Your task to perform on an android device: turn off javascript in the chrome app Image 0: 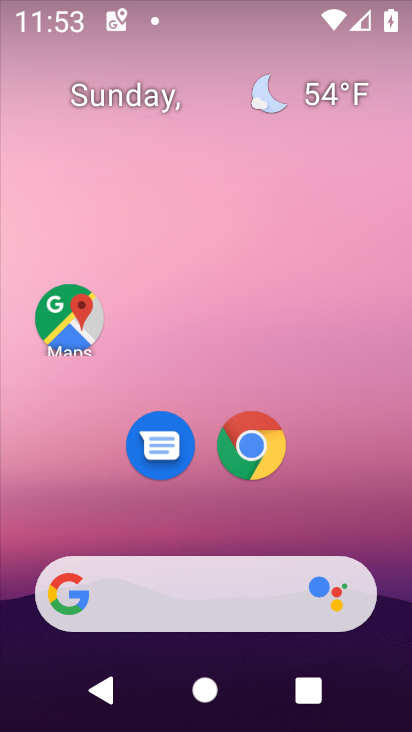
Step 0: drag from (358, 445) to (356, 69)
Your task to perform on an android device: turn off javascript in the chrome app Image 1: 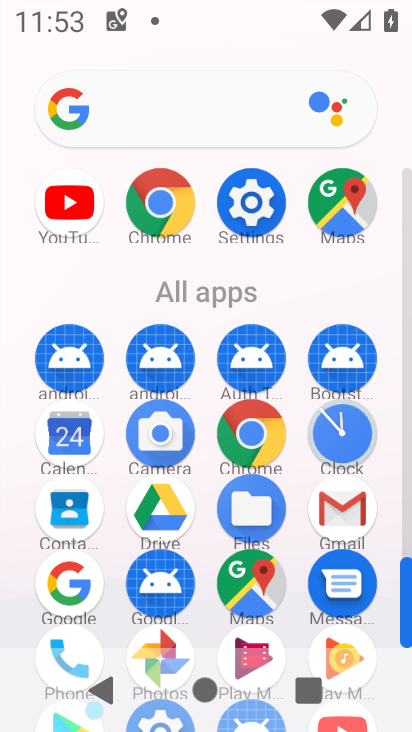
Step 1: click (266, 436)
Your task to perform on an android device: turn off javascript in the chrome app Image 2: 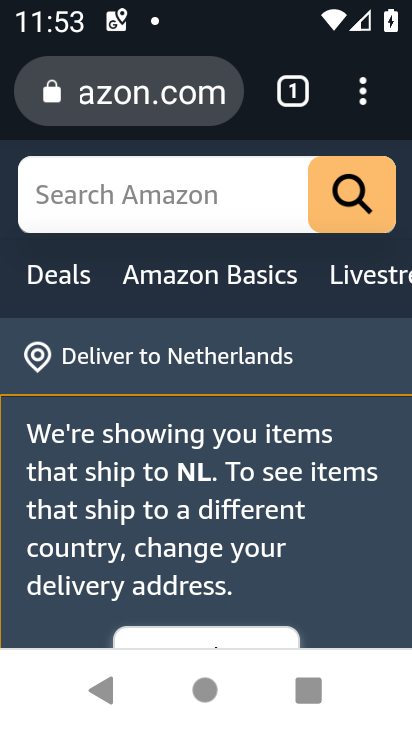
Step 2: drag from (366, 97) to (124, 479)
Your task to perform on an android device: turn off javascript in the chrome app Image 3: 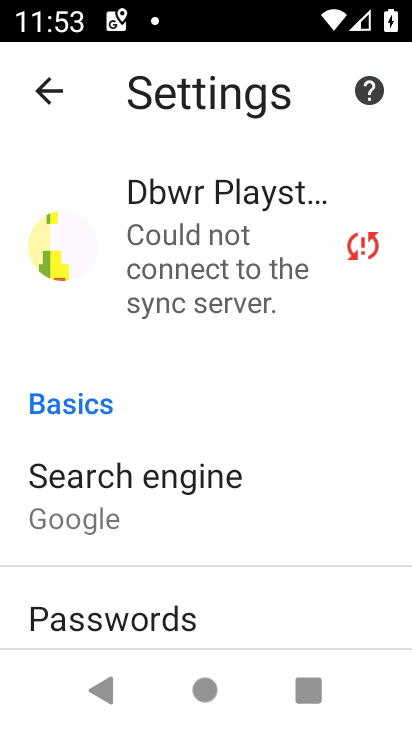
Step 3: drag from (247, 581) to (246, 260)
Your task to perform on an android device: turn off javascript in the chrome app Image 4: 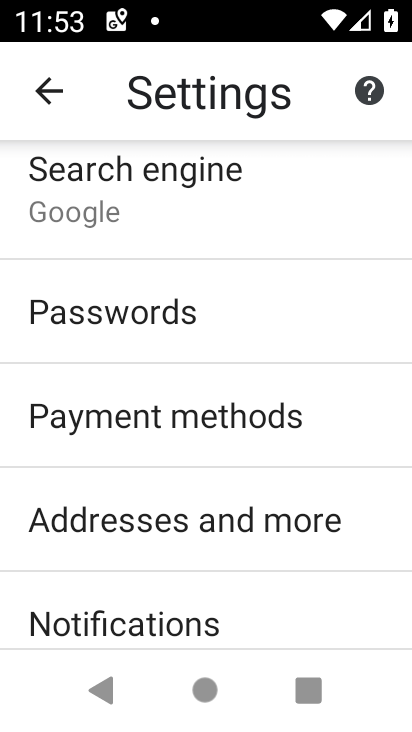
Step 4: drag from (276, 559) to (278, 212)
Your task to perform on an android device: turn off javascript in the chrome app Image 5: 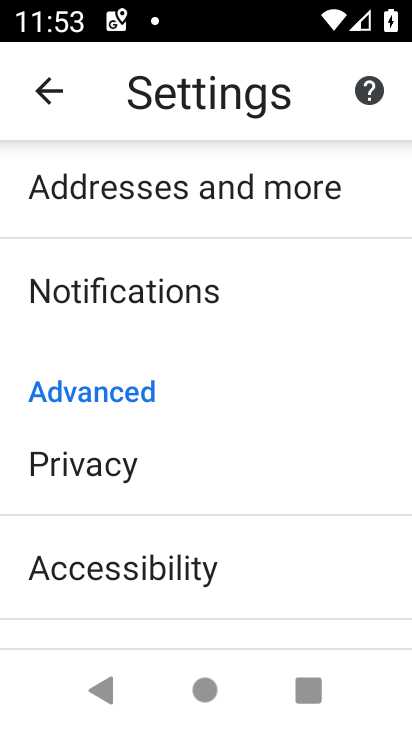
Step 5: drag from (249, 563) to (250, 232)
Your task to perform on an android device: turn off javascript in the chrome app Image 6: 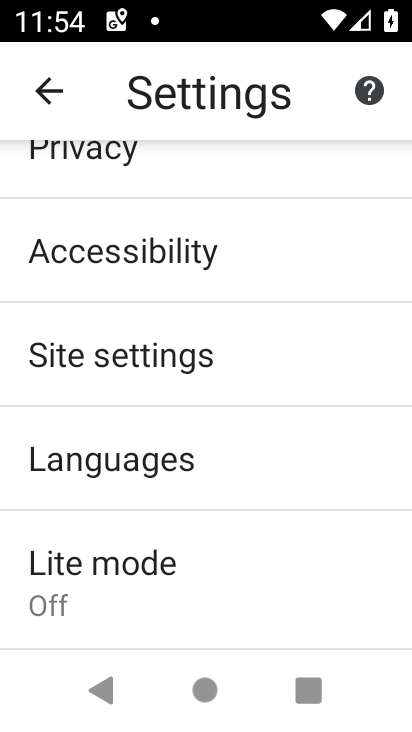
Step 6: drag from (234, 599) to (234, 334)
Your task to perform on an android device: turn off javascript in the chrome app Image 7: 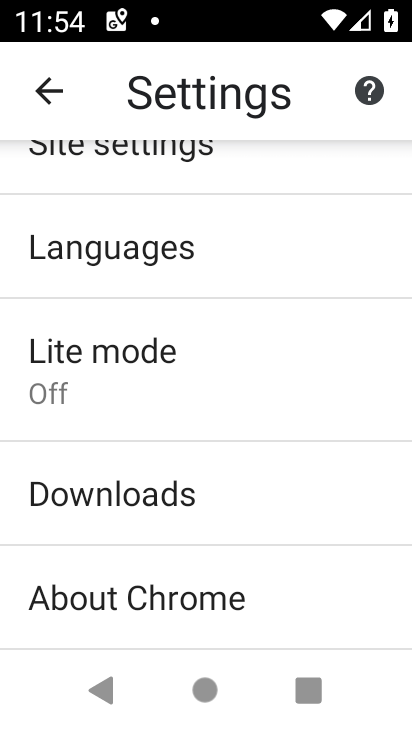
Step 7: drag from (265, 599) to (261, 312)
Your task to perform on an android device: turn off javascript in the chrome app Image 8: 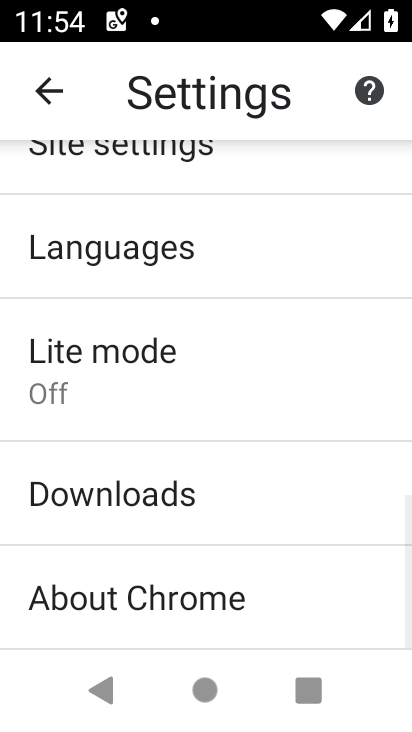
Step 8: drag from (290, 224) to (344, 578)
Your task to perform on an android device: turn off javascript in the chrome app Image 9: 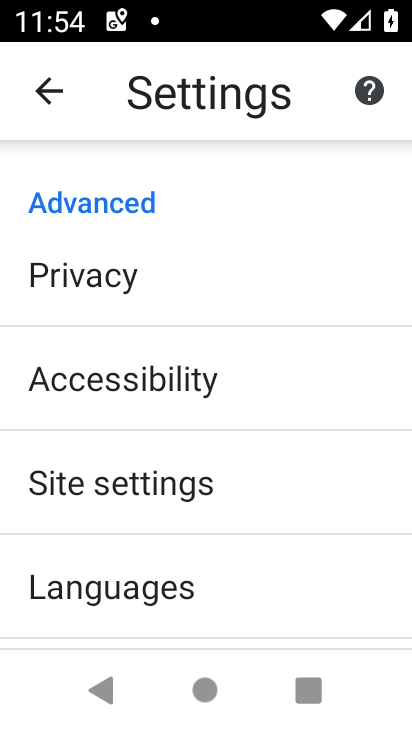
Step 9: click (198, 493)
Your task to perform on an android device: turn off javascript in the chrome app Image 10: 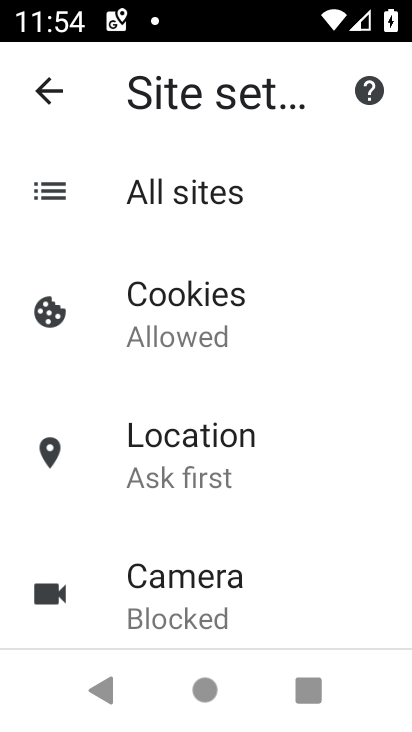
Step 10: drag from (261, 535) to (251, 319)
Your task to perform on an android device: turn off javascript in the chrome app Image 11: 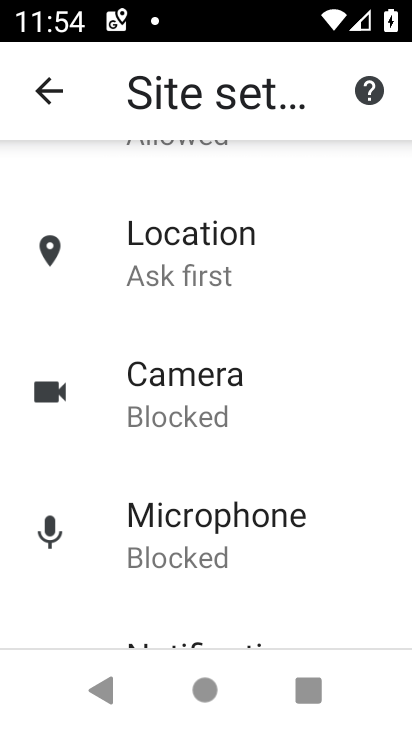
Step 11: drag from (260, 556) to (255, 328)
Your task to perform on an android device: turn off javascript in the chrome app Image 12: 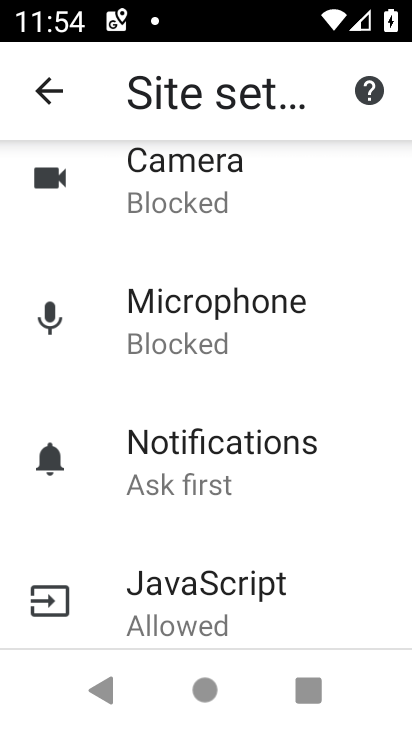
Step 12: click (256, 588)
Your task to perform on an android device: turn off javascript in the chrome app Image 13: 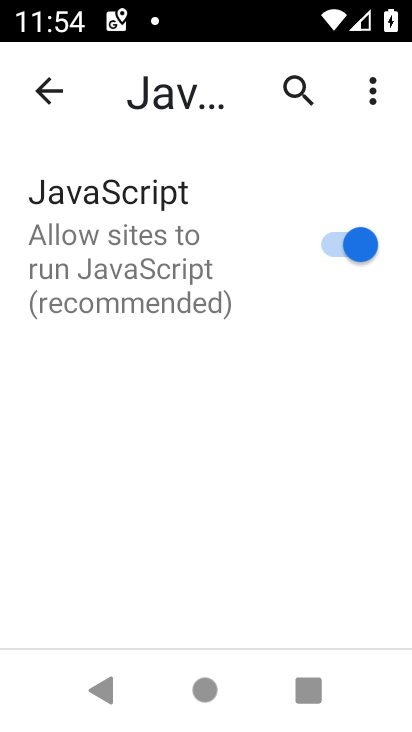
Step 13: click (327, 239)
Your task to perform on an android device: turn off javascript in the chrome app Image 14: 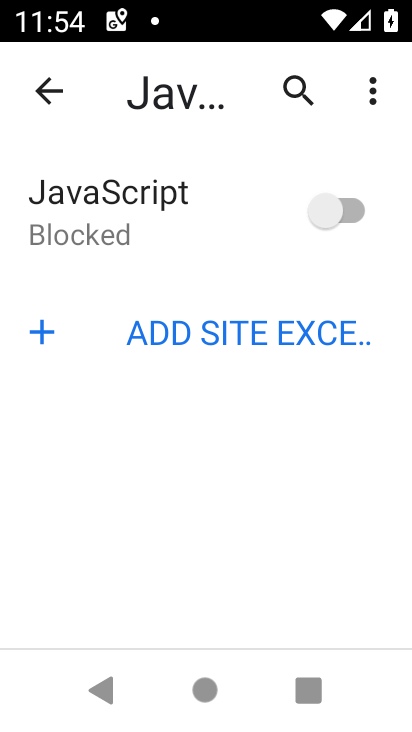
Step 14: task complete